Your task to perform on an android device: Show me popular videos on Youtube Image 0: 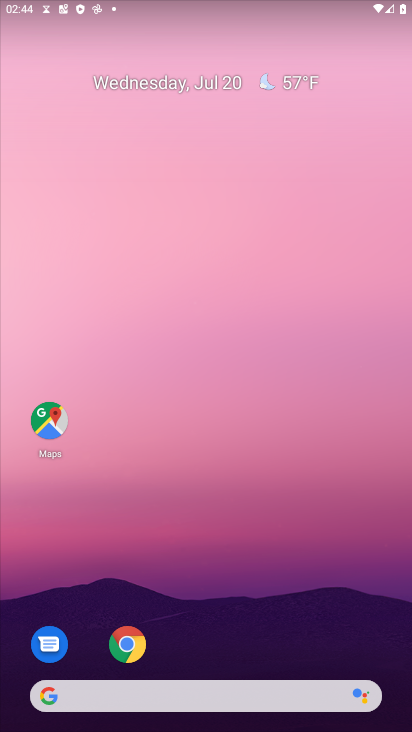
Step 0: drag from (183, 657) to (411, 346)
Your task to perform on an android device: Show me popular videos on Youtube Image 1: 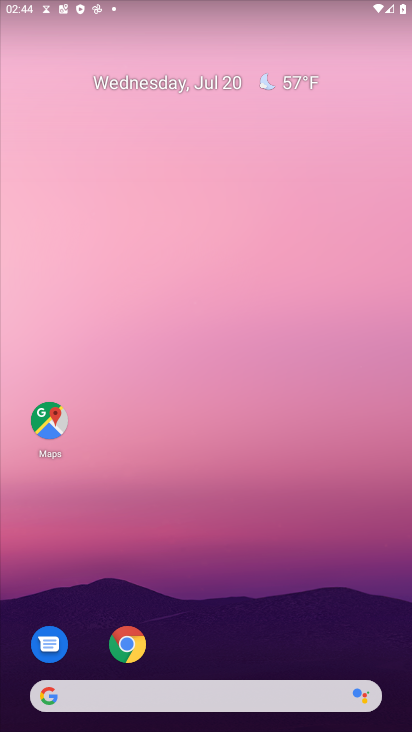
Step 1: drag from (280, 637) to (403, 358)
Your task to perform on an android device: Show me popular videos on Youtube Image 2: 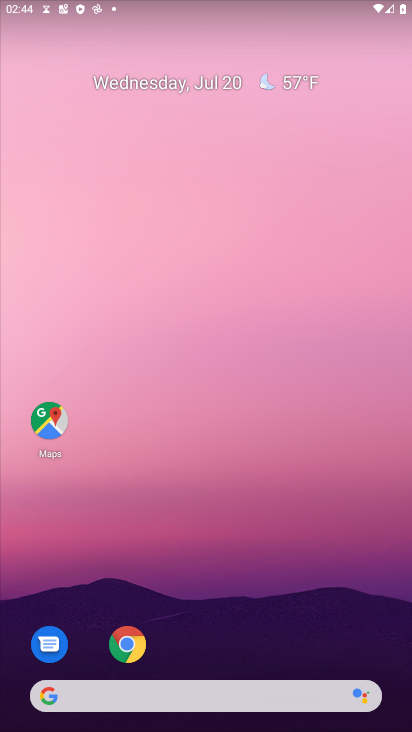
Step 2: drag from (323, 628) to (403, 339)
Your task to perform on an android device: Show me popular videos on Youtube Image 3: 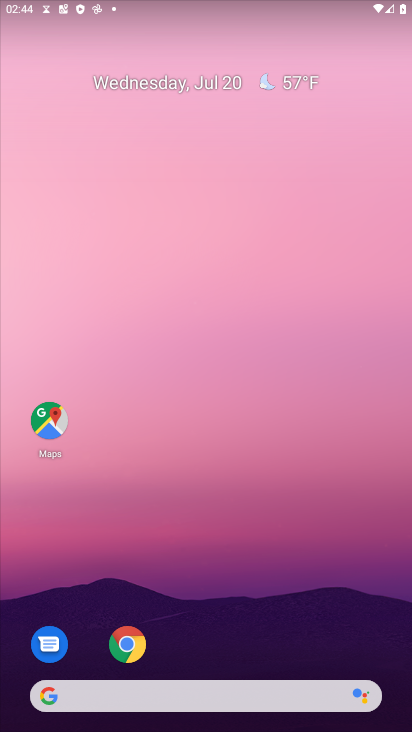
Step 3: drag from (216, 458) to (402, 469)
Your task to perform on an android device: Show me popular videos on Youtube Image 4: 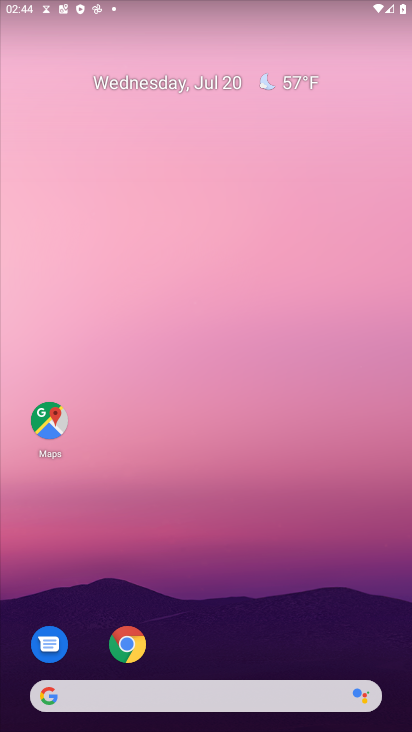
Step 4: drag from (237, 394) to (200, 7)
Your task to perform on an android device: Show me popular videos on Youtube Image 5: 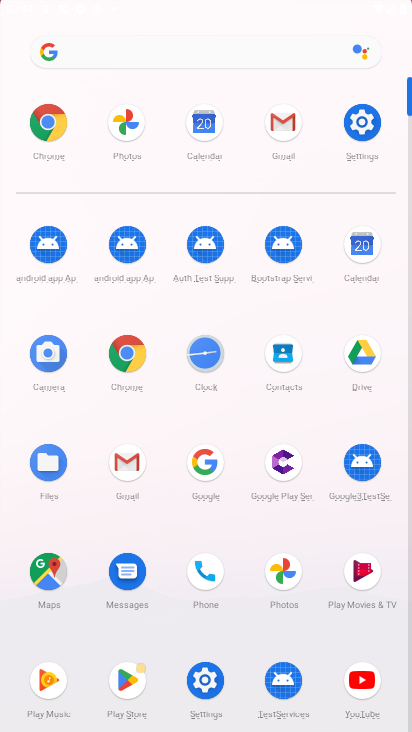
Step 5: drag from (156, 246) to (195, 0)
Your task to perform on an android device: Show me popular videos on Youtube Image 6: 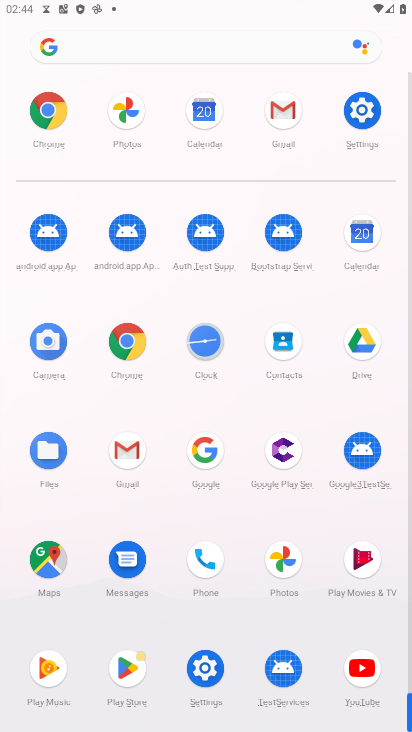
Step 6: click (362, 687)
Your task to perform on an android device: Show me popular videos on Youtube Image 7: 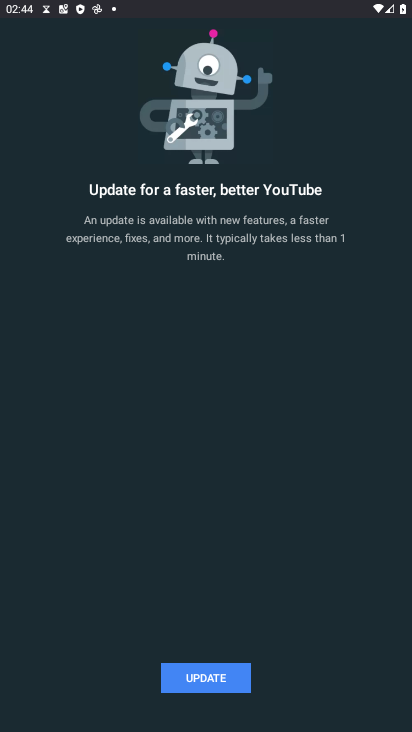
Step 7: click (189, 676)
Your task to perform on an android device: Show me popular videos on Youtube Image 8: 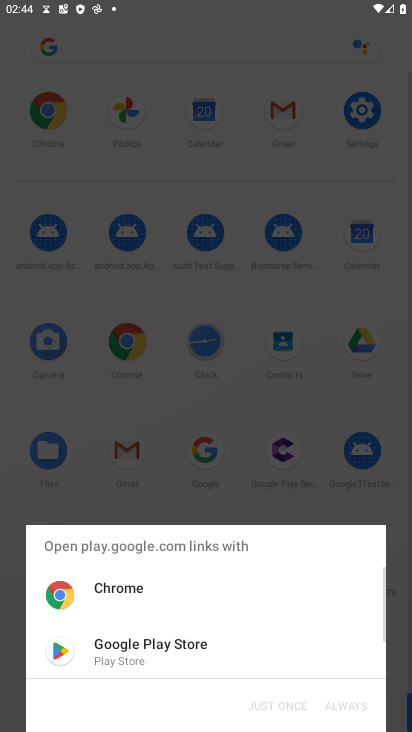
Step 8: click (153, 641)
Your task to perform on an android device: Show me popular videos on Youtube Image 9: 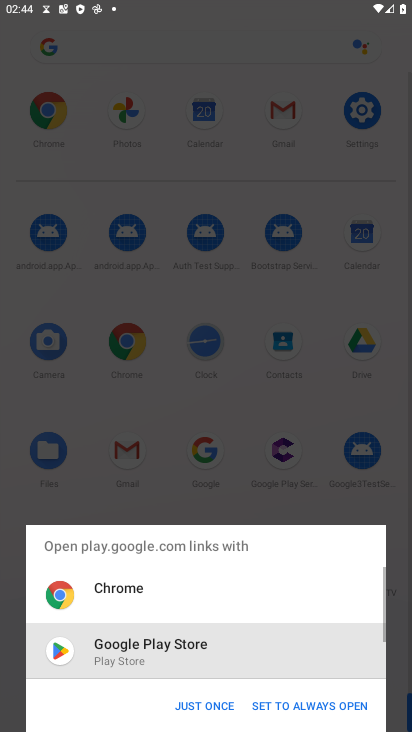
Step 9: click (203, 706)
Your task to perform on an android device: Show me popular videos on Youtube Image 10: 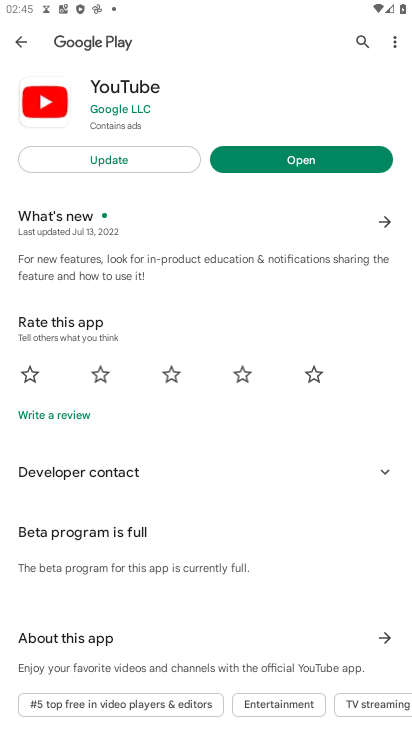
Step 10: click (88, 159)
Your task to perform on an android device: Show me popular videos on Youtube Image 11: 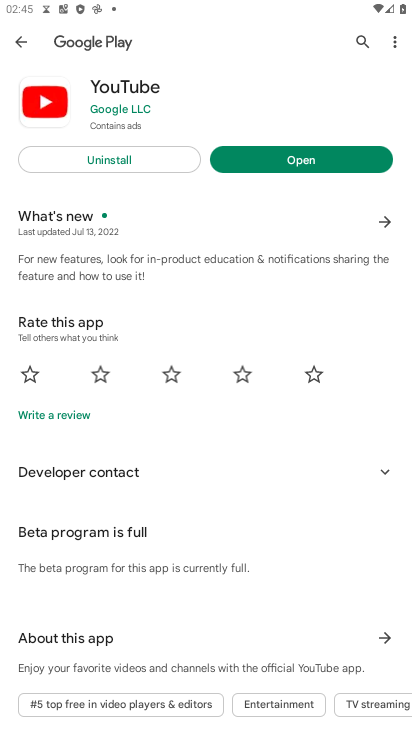
Step 11: click (234, 157)
Your task to perform on an android device: Show me popular videos on Youtube Image 12: 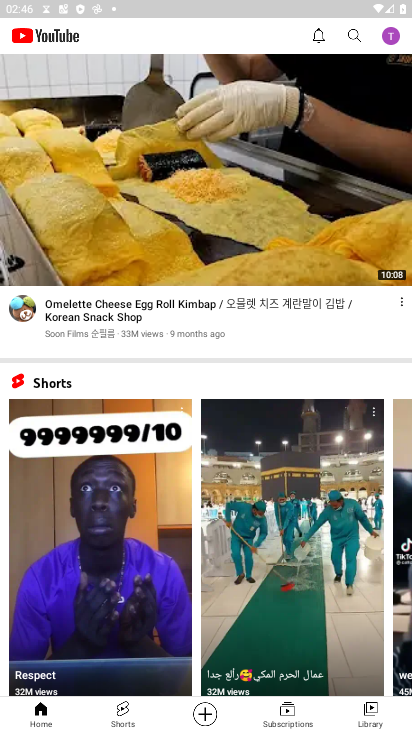
Step 12: drag from (124, 120) to (28, 723)
Your task to perform on an android device: Show me popular videos on Youtube Image 13: 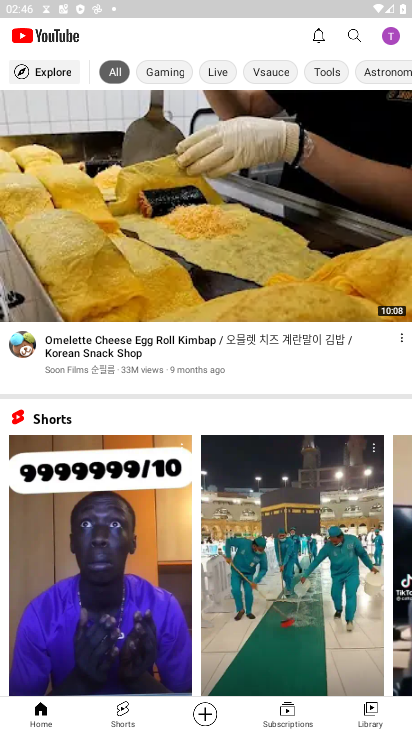
Step 13: click (53, 75)
Your task to perform on an android device: Show me popular videos on Youtube Image 14: 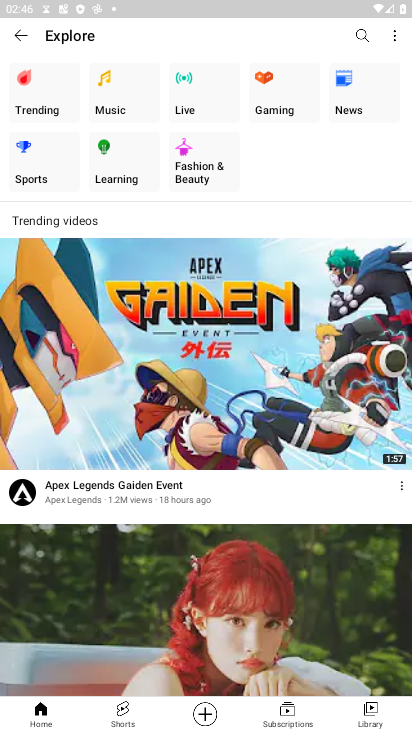
Step 14: click (32, 93)
Your task to perform on an android device: Show me popular videos on Youtube Image 15: 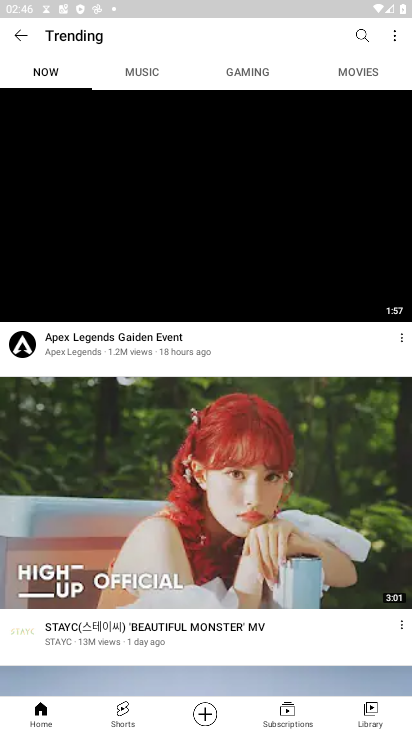
Step 15: task complete